Your task to perform on an android device: change alarm snooze length Image 0: 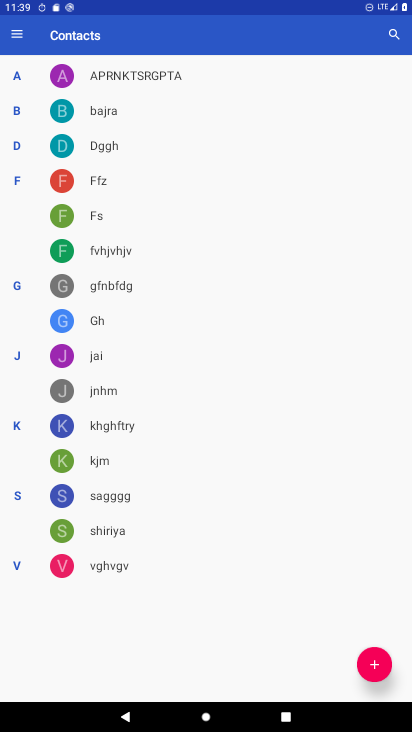
Step 0: press home button
Your task to perform on an android device: change alarm snooze length Image 1: 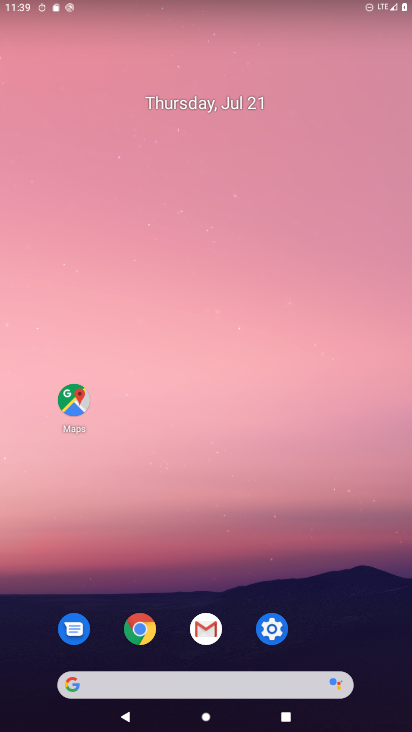
Step 1: drag from (293, 549) to (349, 174)
Your task to perform on an android device: change alarm snooze length Image 2: 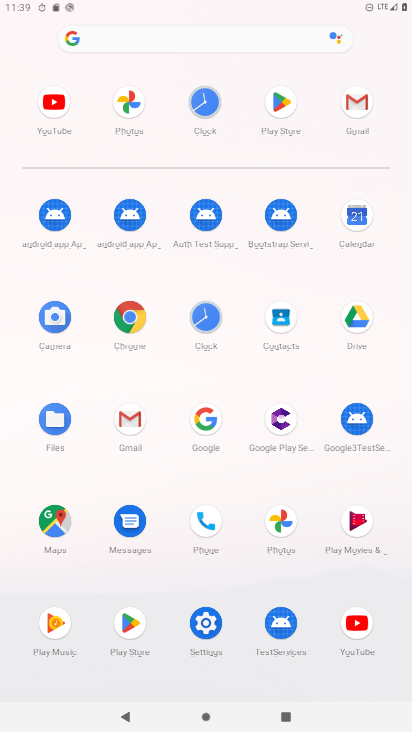
Step 2: click (211, 315)
Your task to perform on an android device: change alarm snooze length Image 3: 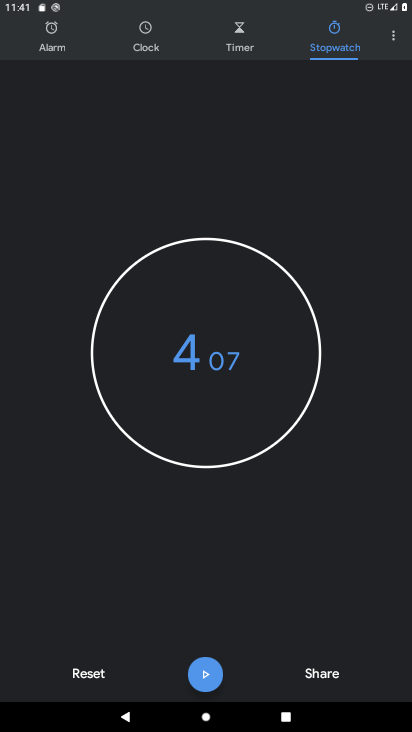
Step 3: click (392, 43)
Your task to perform on an android device: change alarm snooze length Image 4: 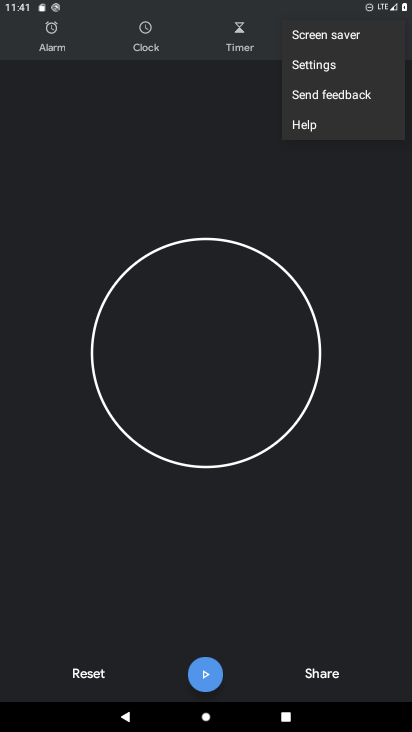
Step 4: click (341, 74)
Your task to perform on an android device: change alarm snooze length Image 5: 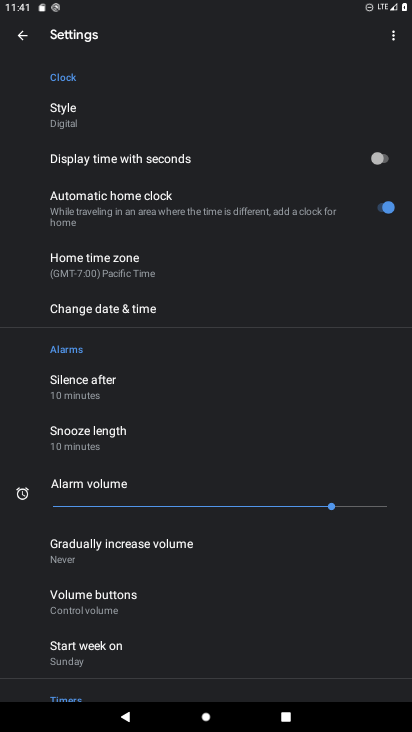
Step 5: click (123, 433)
Your task to perform on an android device: change alarm snooze length Image 6: 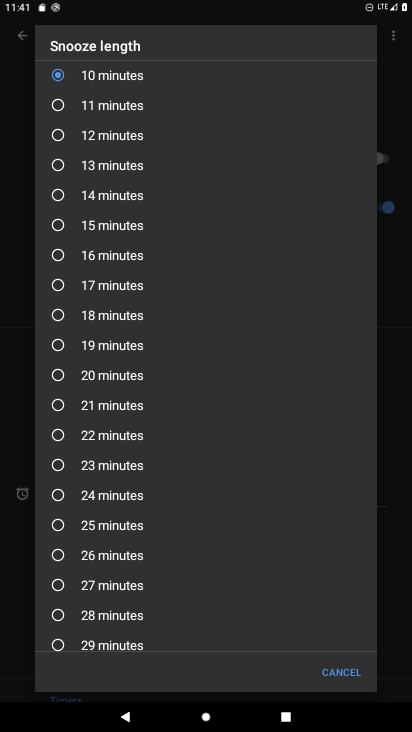
Step 6: click (94, 432)
Your task to perform on an android device: change alarm snooze length Image 7: 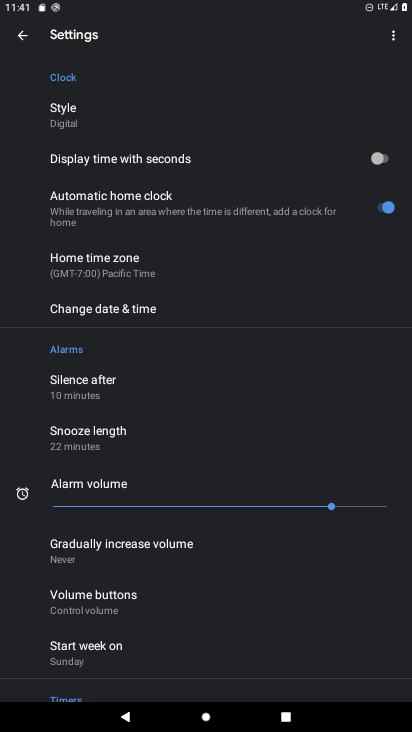
Step 7: task complete